Your task to perform on an android device: uninstall "Google Play Games" Image 0: 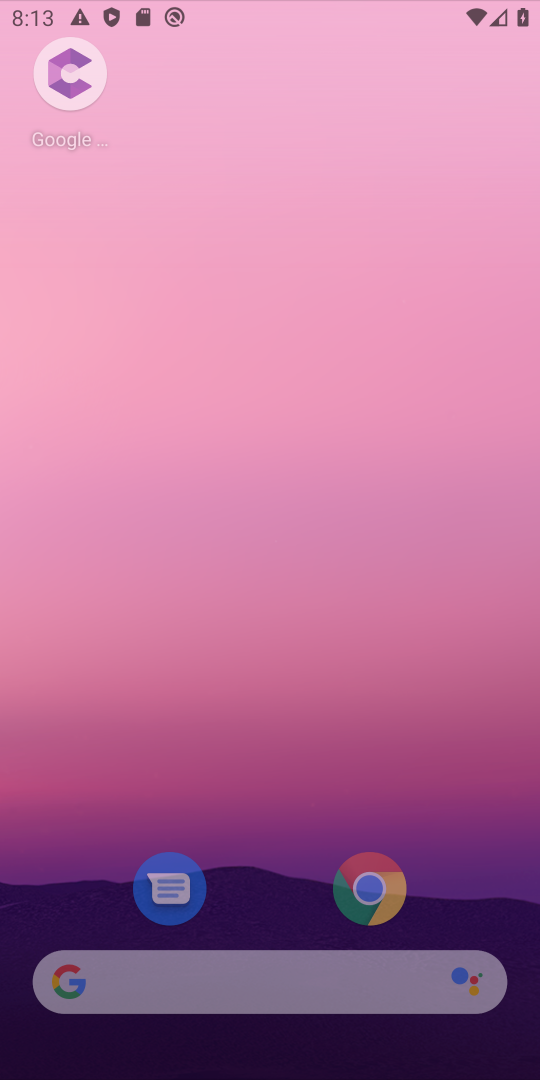
Step 0: press home button
Your task to perform on an android device: uninstall "Google Play Games" Image 1: 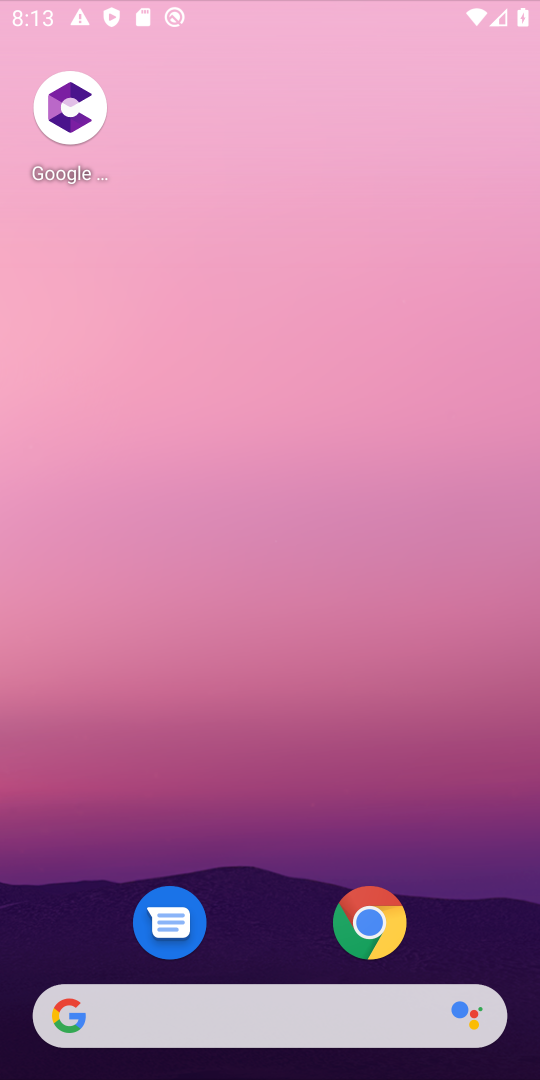
Step 1: drag from (258, 1057) to (319, 387)
Your task to perform on an android device: uninstall "Google Play Games" Image 2: 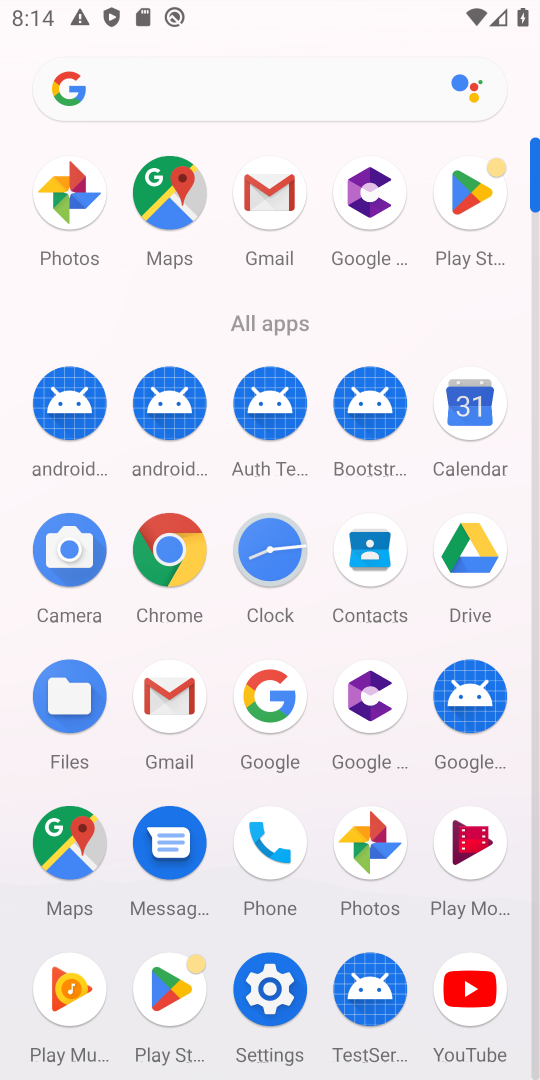
Step 2: click (168, 983)
Your task to perform on an android device: uninstall "Google Play Games" Image 3: 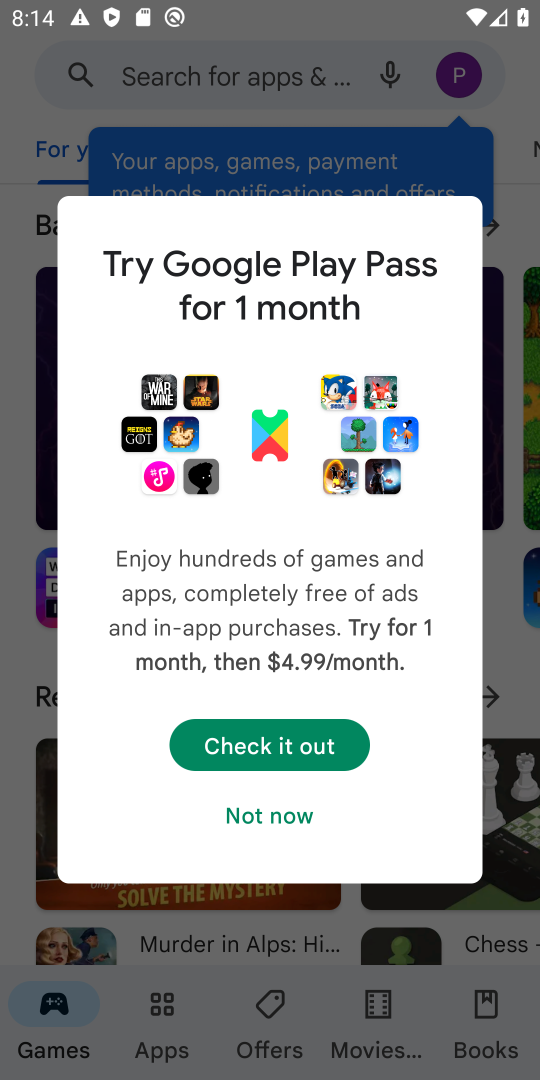
Step 3: click (261, 816)
Your task to perform on an android device: uninstall "Google Play Games" Image 4: 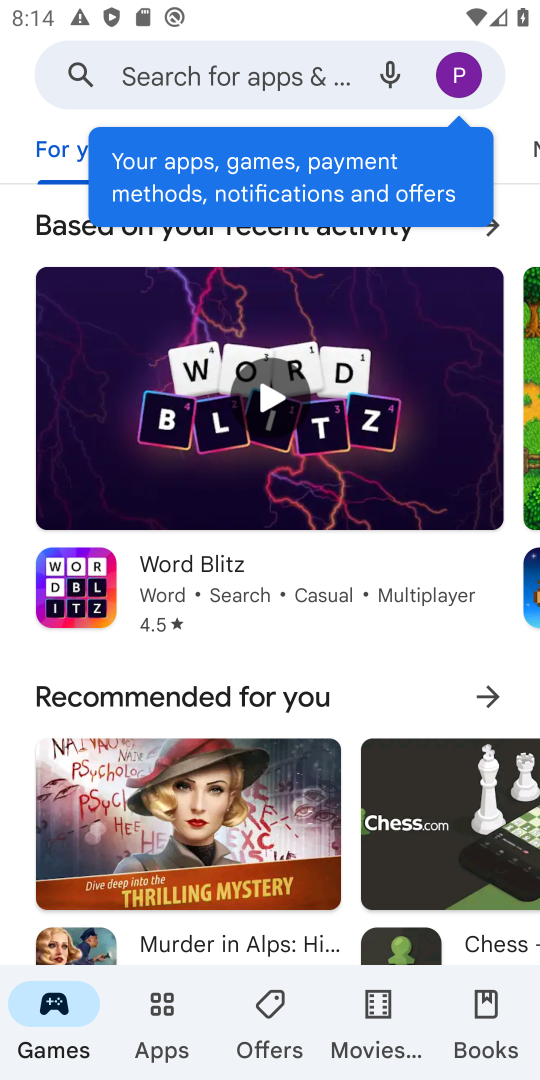
Step 4: click (265, 79)
Your task to perform on an android device: uninstall "Google Play Games" Image 5: 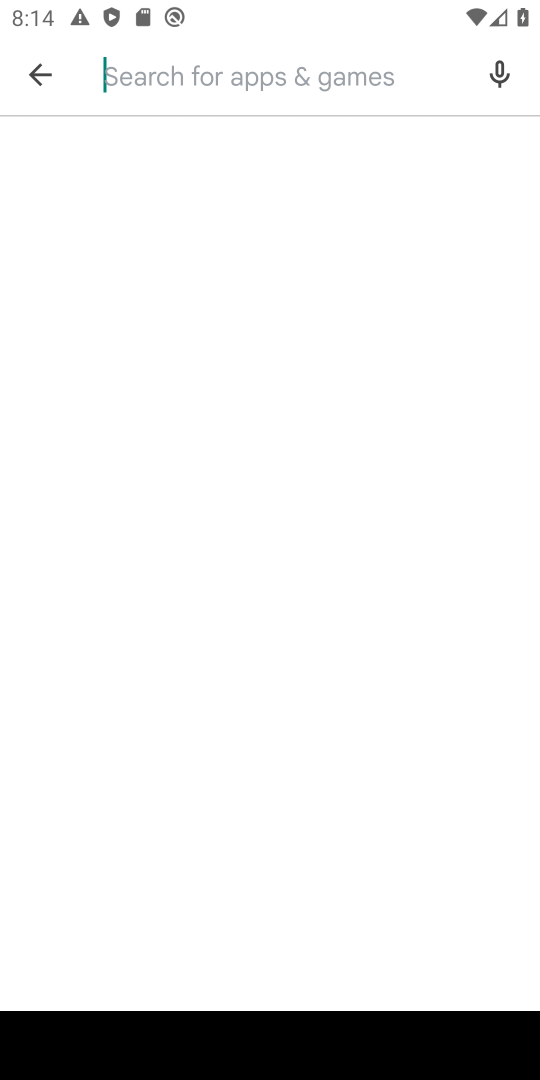
Step 5: type "Google Play Games"
Your task to perform on an android device: uninstall "Google Play Games" Image 6: 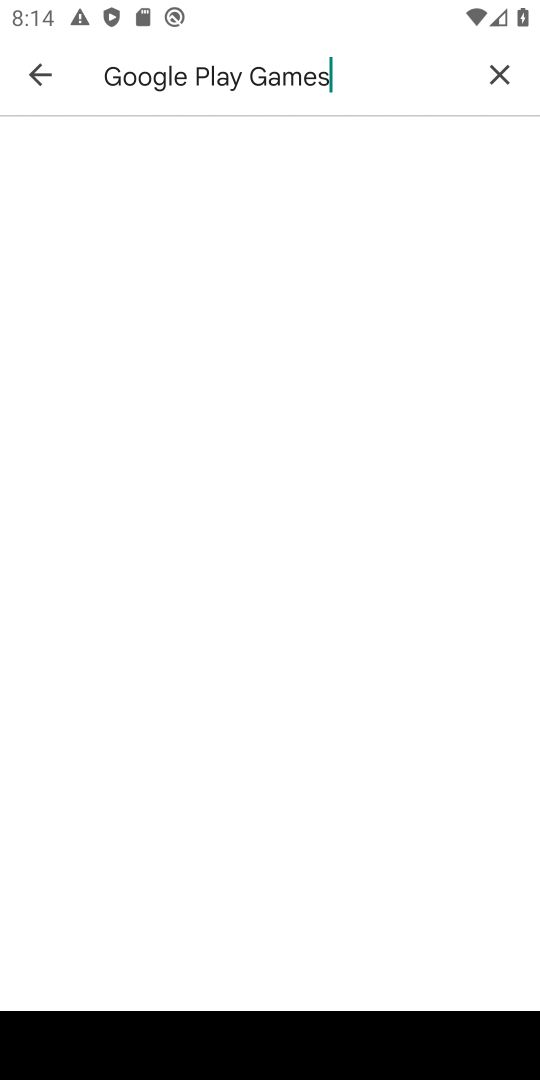
Step 6: type ""
Your task to perform on an android device: uninstall "Google Play Games" Image 7: 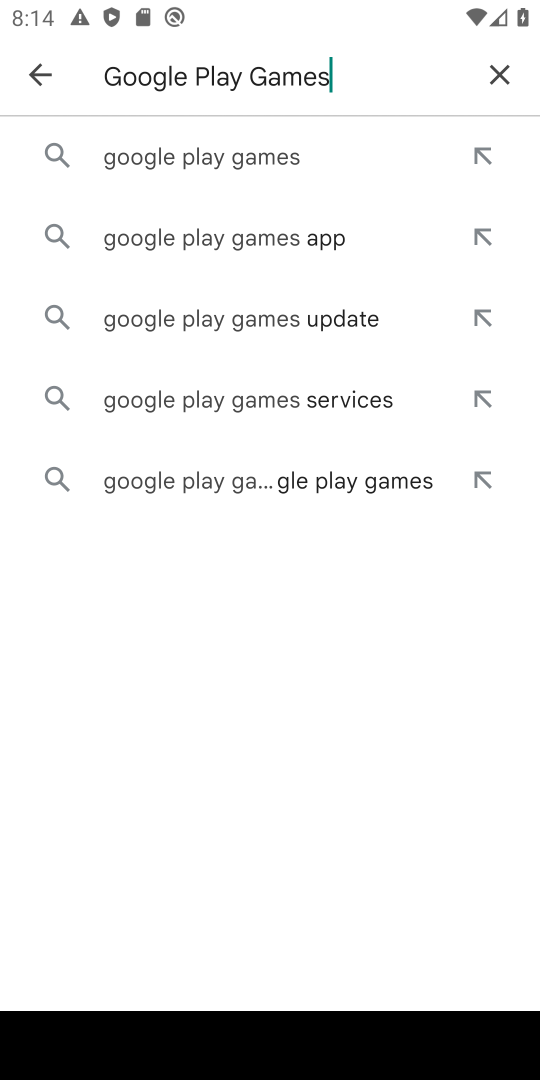
Step 7: click (256, 151)
Your task to perform on an android device: uninstall "Google Play Games" Image 8: 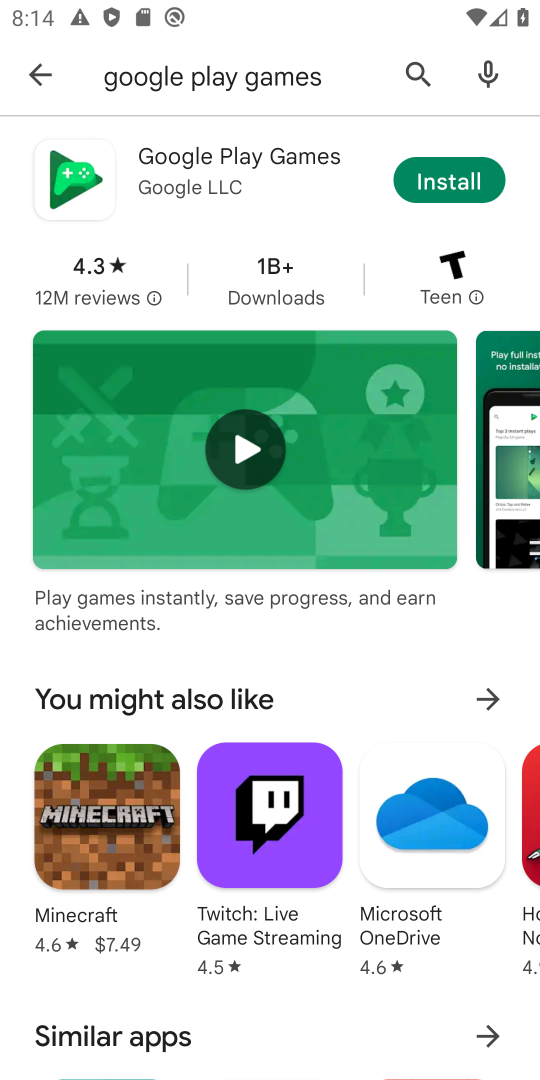
Step 8: click (219, 160)
Your task to perform on an android device: uninstall "Google Play Games" Image 9: 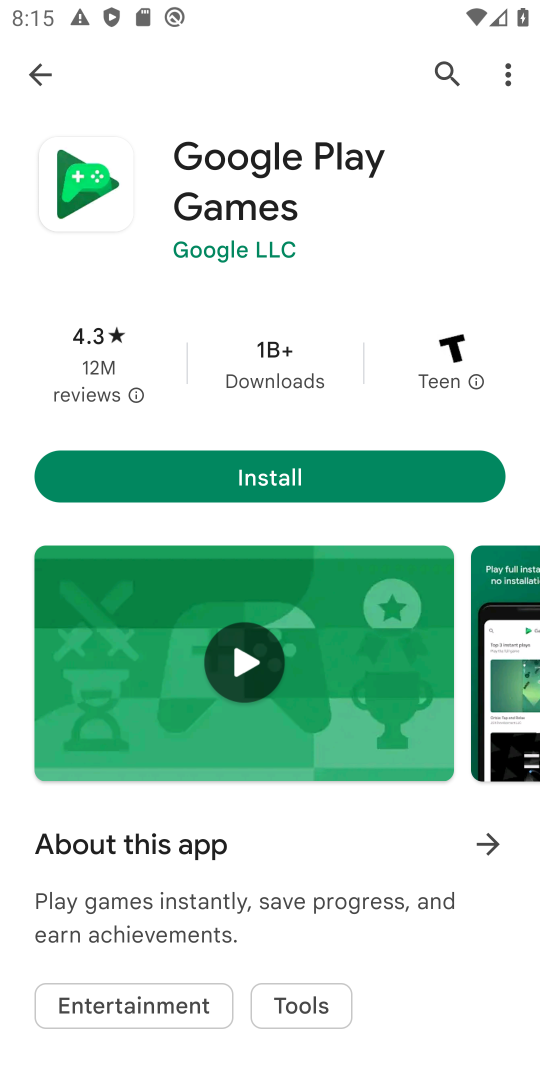
Step 9: task complete